Your task to perform on an android device: empty trash in the gmail app Image 0: 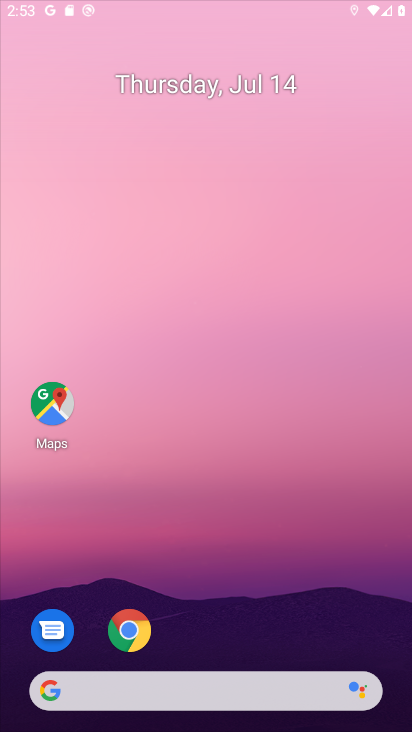
Step 0: press back button
Your task to perform on an android device: empty trash in the gmail app Image 1: 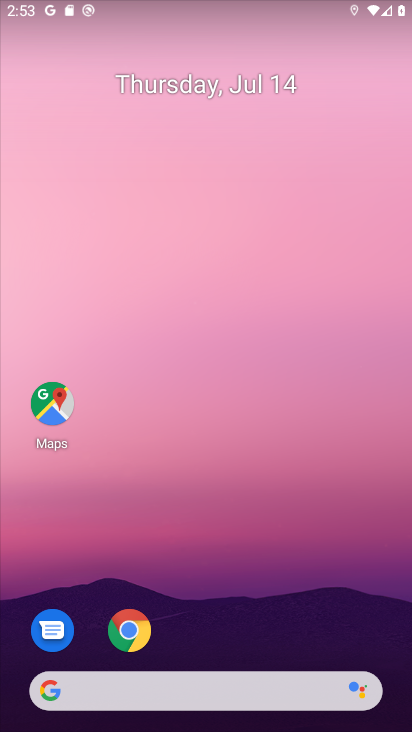
Step 1: drag from (201, 604) to (94, 66)
Your task to perform on an android device: empty trash in the gmail app Image 2: 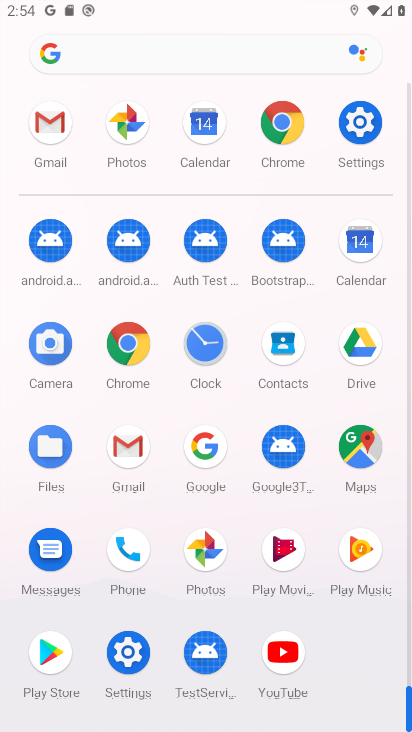
Step 2: click (122, 441)
Your task to perform on an android device: empty trash in the gmail app Image 3: 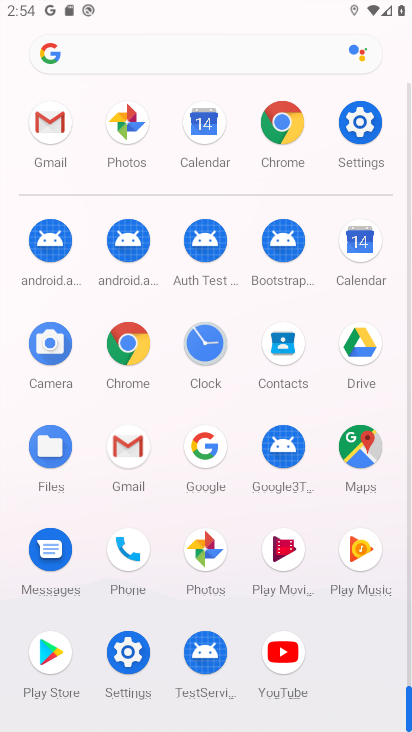
Step 3: click (121, 446)
Your task to perform on an android device: empty trash in the gmail app Image 4: 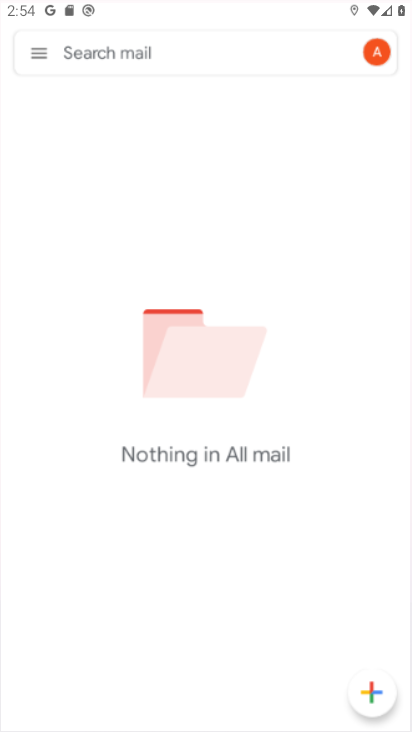
Step 4: click (126, 444)
Your task to perform on an android device: empty trash in the gmail app Image 5: 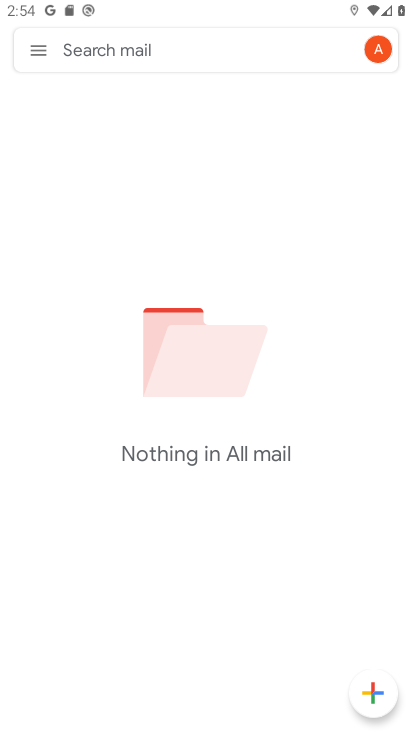
Step 5: task complete